Your task to perform on an android device: Open battery settings Image 0: 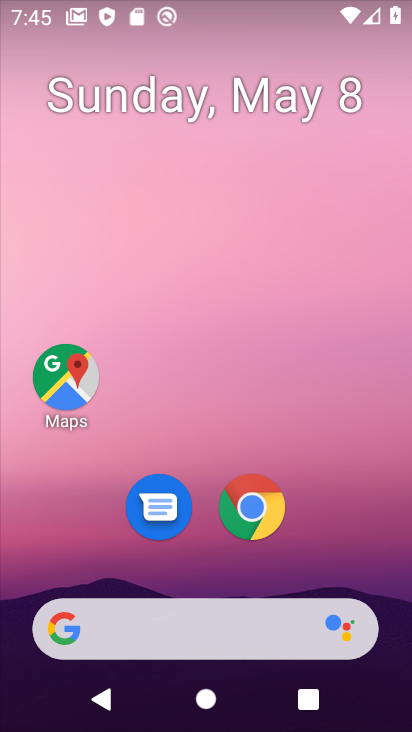
Step 0: drag from (139, 692) to (321, 0)
Your task to perform on an android device: Open battery settings Image 1: 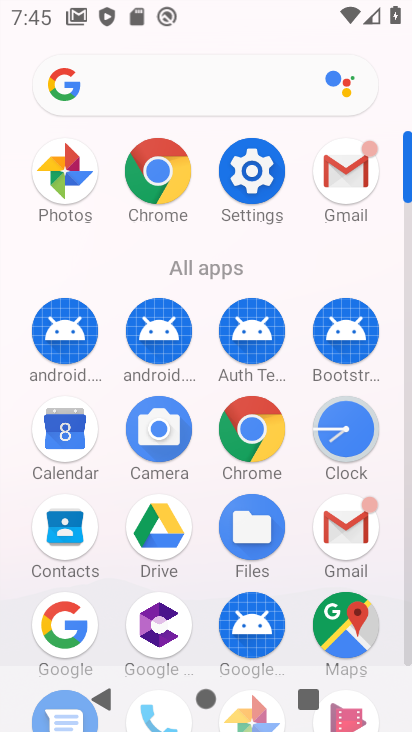
Step 1: click (251, 178)
Your task to perform on an android device: Open battery settings Image 2: 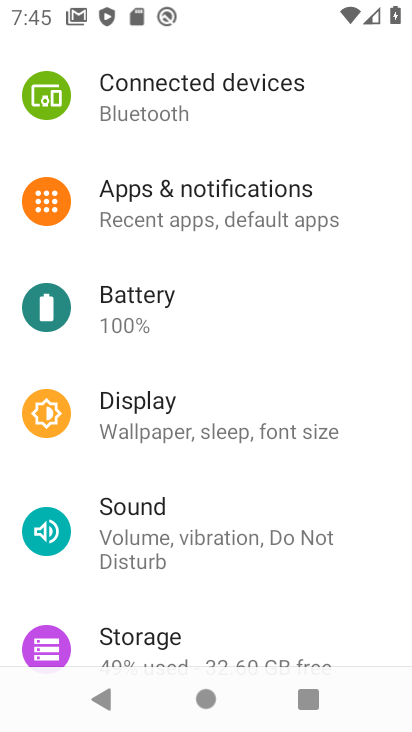
Step 2: click (181, 319)
Your task to perform on an android device: Open battery settings Image 3: 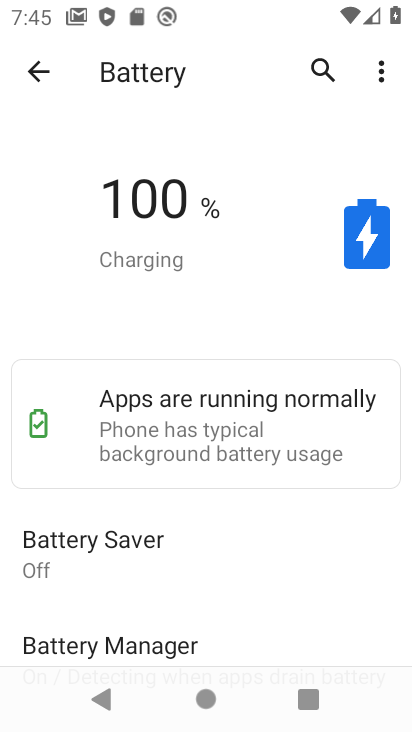
Step 3: task complete